Your task to perform on an android device: turn on location history Image 0: 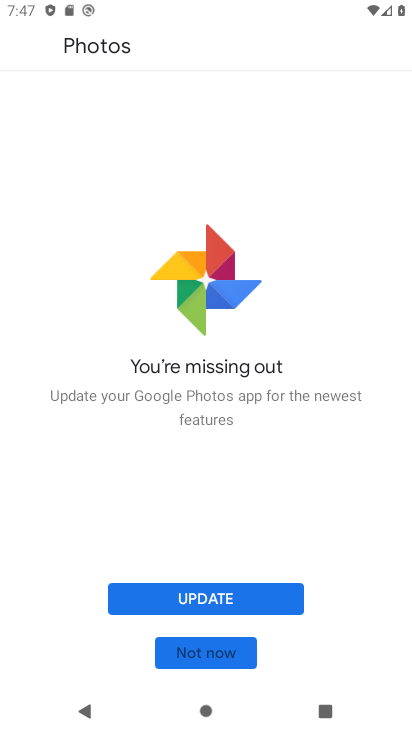
Step 0: press home button
Your task to perform on an android device: turn on location history Image 1: 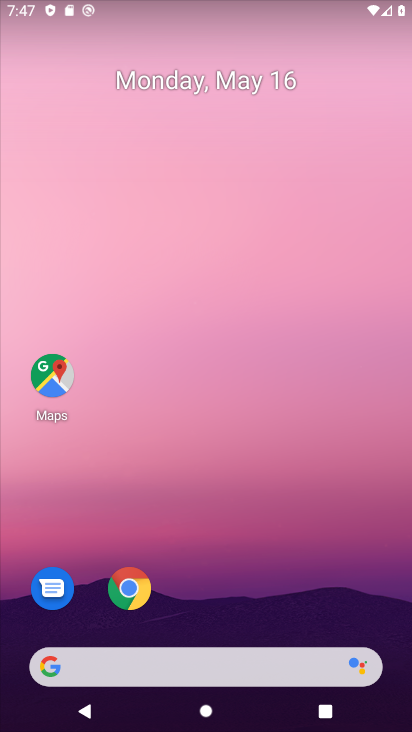
Step 1: drag from (354, 583) to (353, 74)
Your task to perform on an android device: turn on location history Image 2: 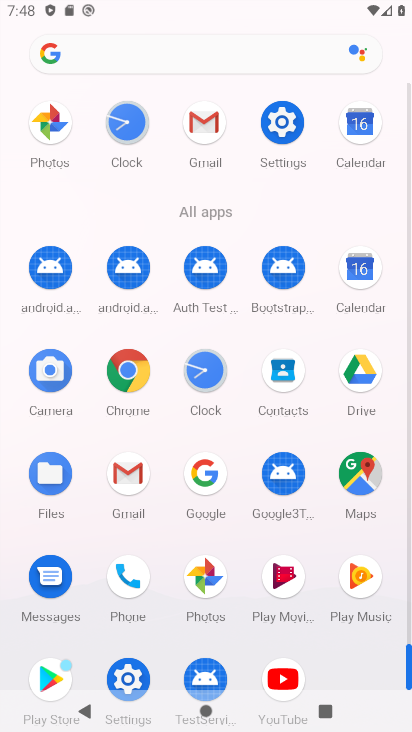
Step 2: drag from (159, 465) to (168, 284)
Your task to perform on an android device: turn on location history Image 3: 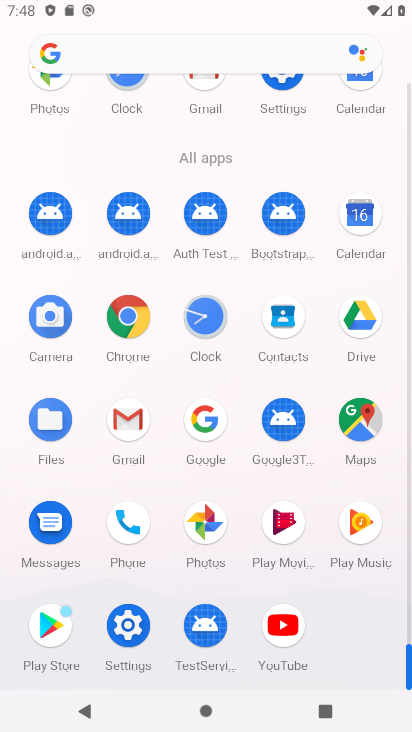
Step 3: click (131, 625)
Your task to perform on an android device: turn on location history Image 4: 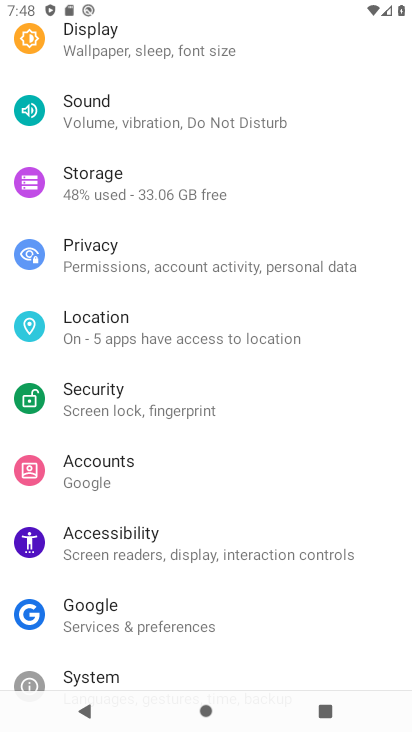
Step 4: drag from (358, 398) to (359, 505)
Your task to perform on an android device: turn on location history Image 5: 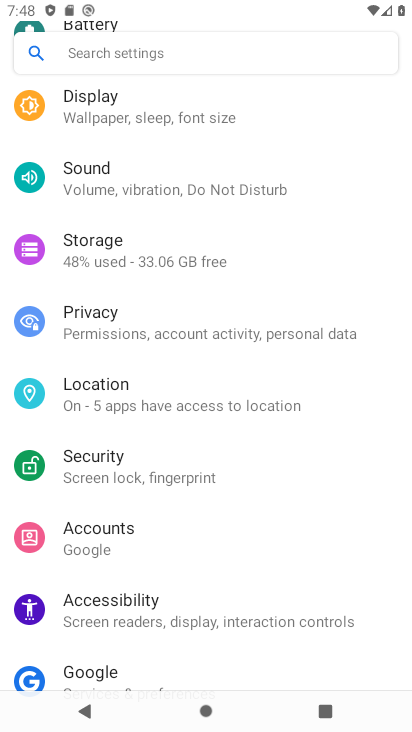
Step 5: drag from (383, 329) to (370, 458)
Your task to perform on an android device: turn on location history Image 6: 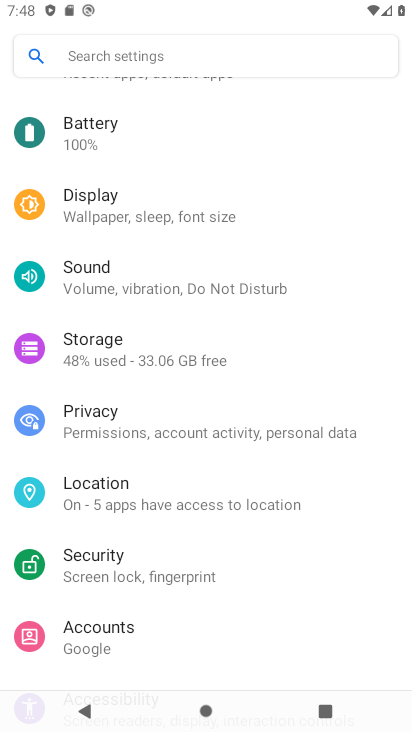
Step 6: drag from (369, 270) to (362, 460)
Your task to perform on an android device: turn on location history Image 7: 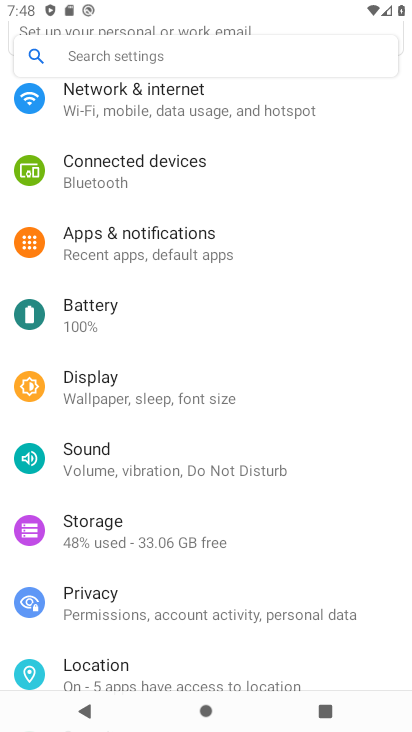
Step 7: drag from (356, 254) to (344, 436)
Your task to perform on an android device: turn on location history Image 8: 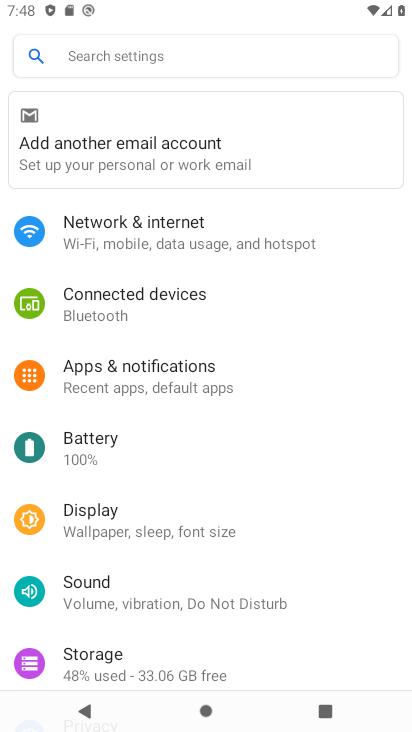
Step 8: drag from (346, 292) to (341, 444)
Your task to perform on an android device: turn on location history Image 9: 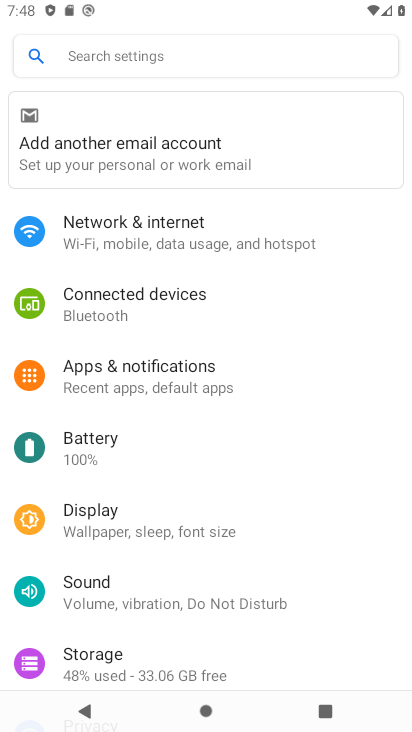
Step 9: drag from (340, 550) to (353, 383)
Your task to perform on an android device: turn on location history Image 10: 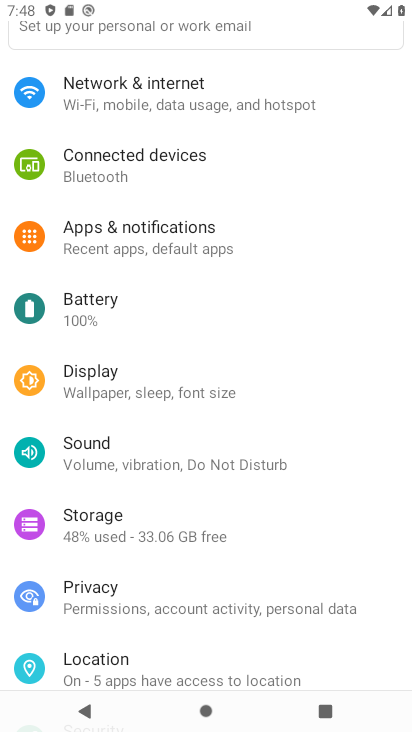
Step 10: drag from (333, 568) to (329, 423)
Your task to perform on an android device: turn on location history Image 11: 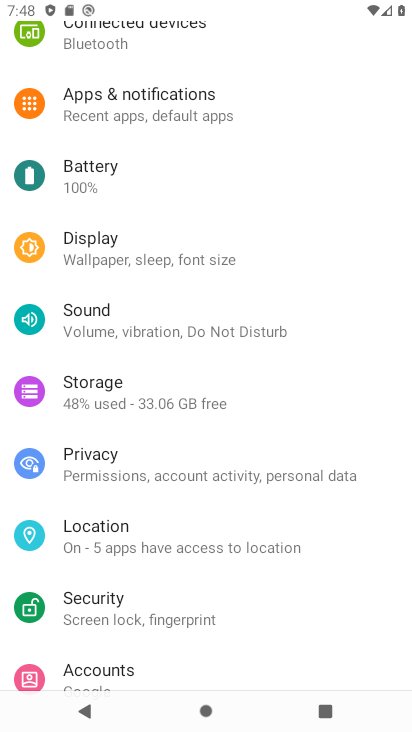
Step 11: drag from (330, 607) to (341, 495)
Your task to perform on an android device: turn on location history Image 12: 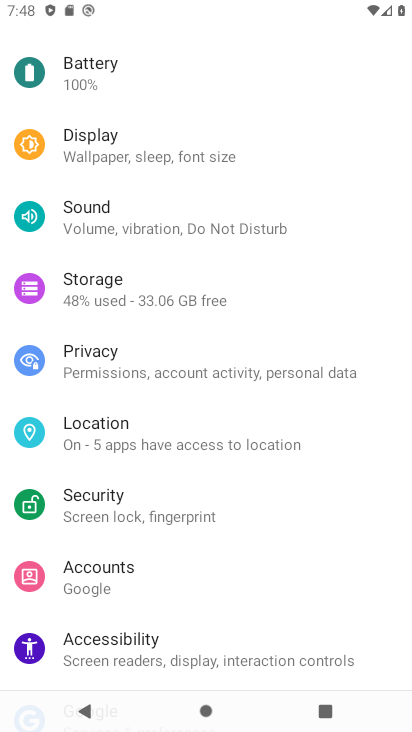
Step 12: click (263, 445)
Your task to perform on an android device: turn on location history Image 13: 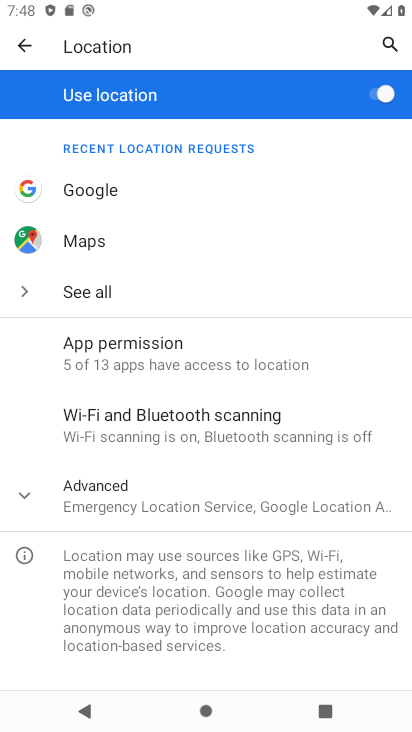
Step 13: click (279, 508)
Your task to perform on an android device: turn on location history Image 14: 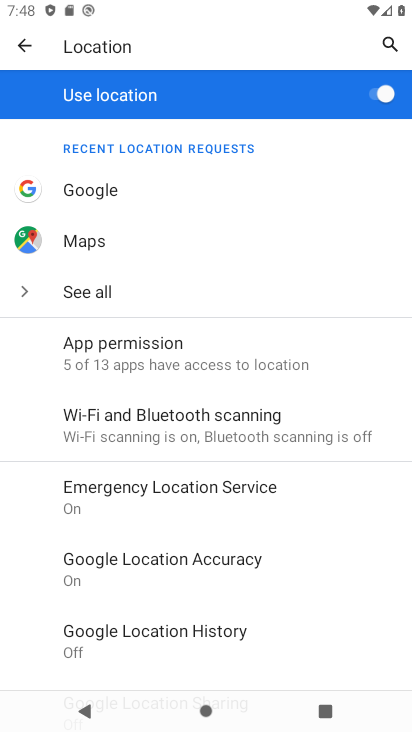
Step 14: drag from (314, 602) to (319, 457)
Your task to perform on an android device: turn on location history Image 15: 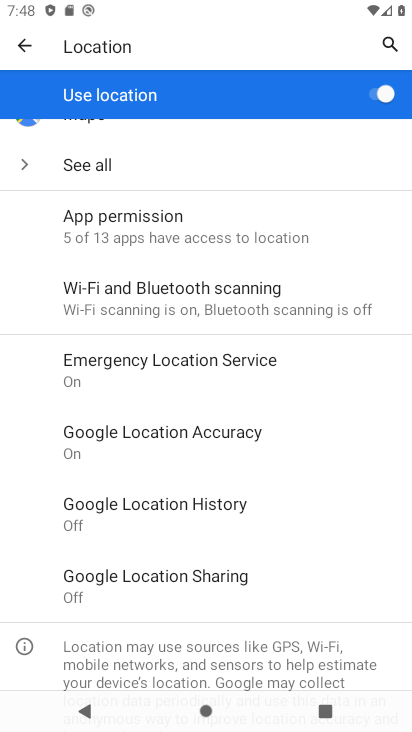
Step 15: drag from (309, 596) to (318, 486)
Your task to perform on an android device: turn on location history Image 16: 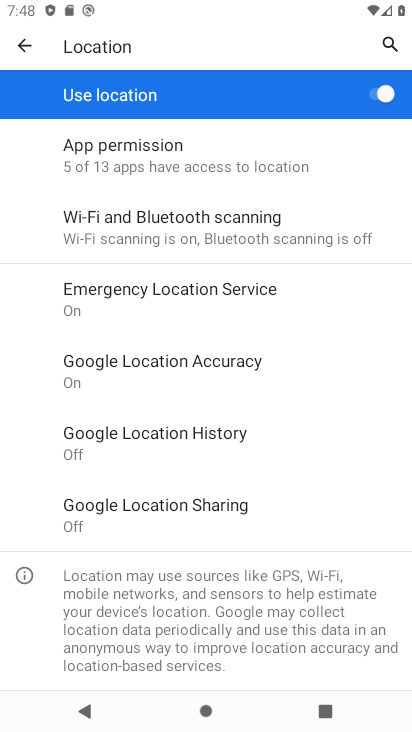
Step 16: click (185, 444)
Your task to perform on an android device: turn on location history Image 17: 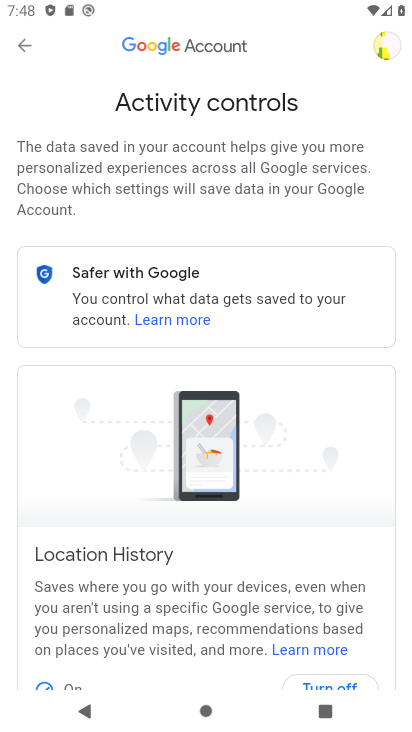
Step 17: task complete